Your task to perform on an android device: Open Google Chrome and open the bookmarks view Image 0: 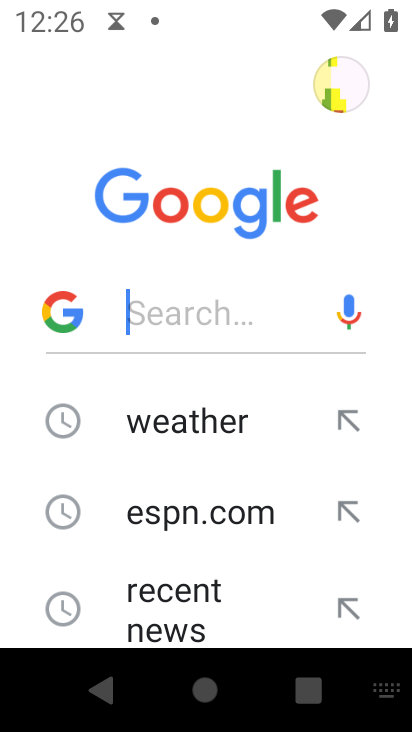
Step 0: press home button
Your task to perform on an android device: Open Google Chrome and open the bookmarks view Image 1: 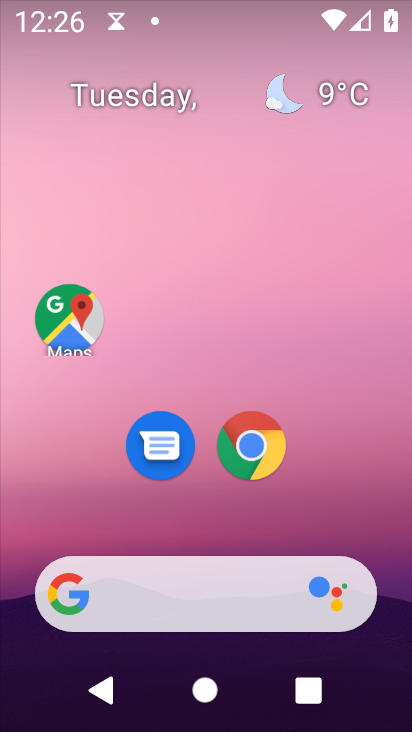
Step 1: drag from (273, 556) to (408, 299)
Your task to perform on an android device: Open Google Chrome and open the bookmarks view Image 2: 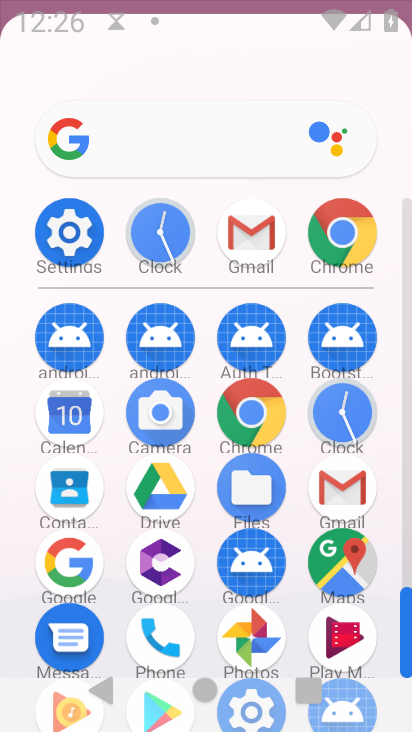
Step 2: click (242, 390)
Your task to perform on an android device: Open Google Chrome and open the bookmarks view Image 3: 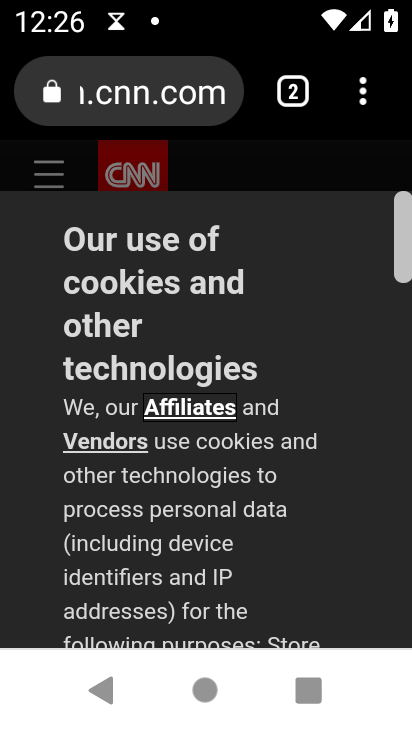
Step 3: click (362, 88)
Your task to perform on an android device: Open Google Chrome and open the bookmarks view Image 4: 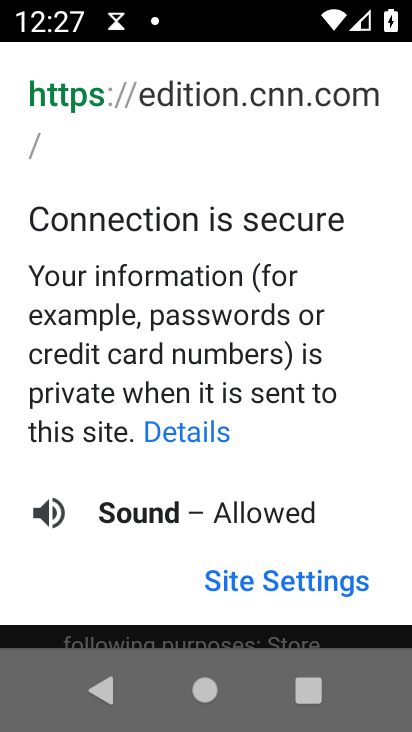
Step 4: click (330, 645)
Your task to perform on an android device: Open Google Chrome and open the bookmarks view Image 5: 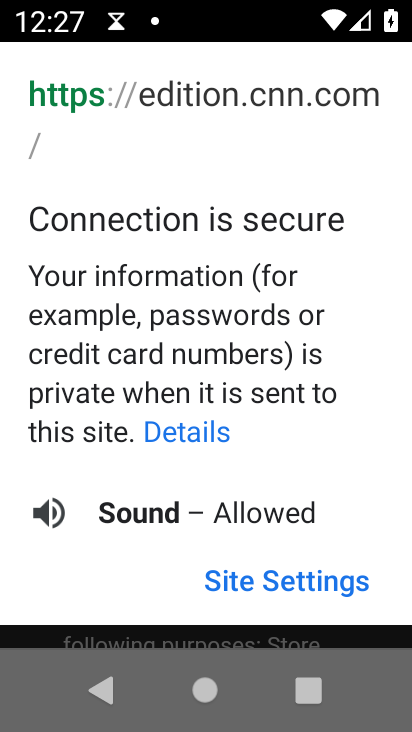
Step 5: task complete